Your task to perform on an android device: turn off location Image 0: 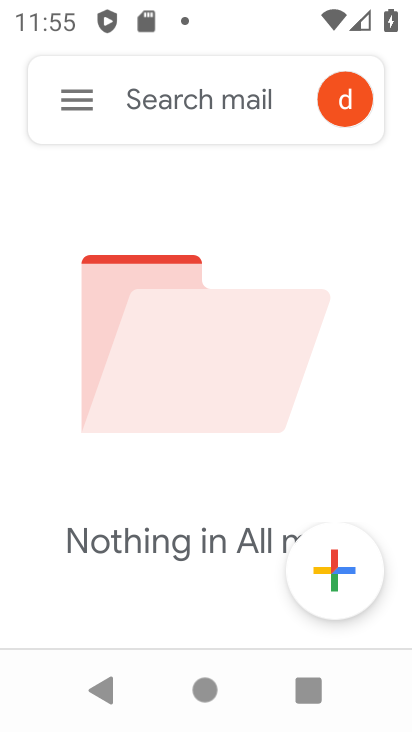
Step 0: press home button
Your task to perform on an android device: turn off location Image 1: 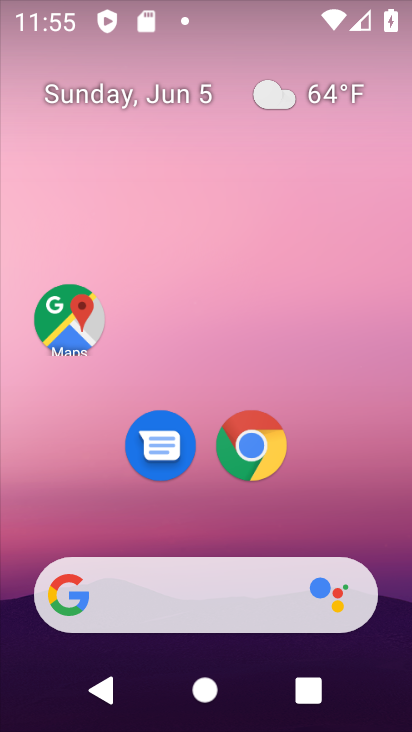
Step 1: drag from (259, 644) to (285, 34)
Your task to perform on an android device: turn off location Image 2: 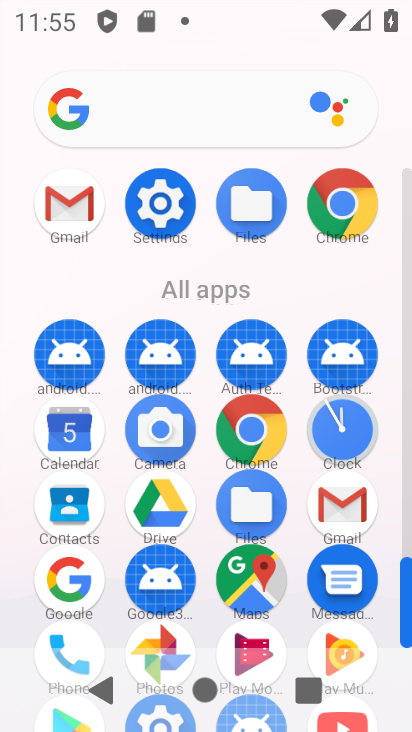
Step 2: click (176, 188)
Your task to perform on an android device: turn off location Image 3: 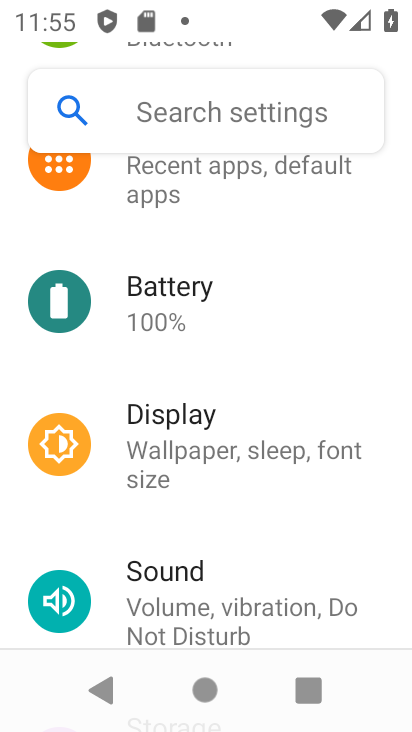
Step 3: drag from (186, 601) to (232, 104)
Your task to perform on an android device: turn off location Image 4: 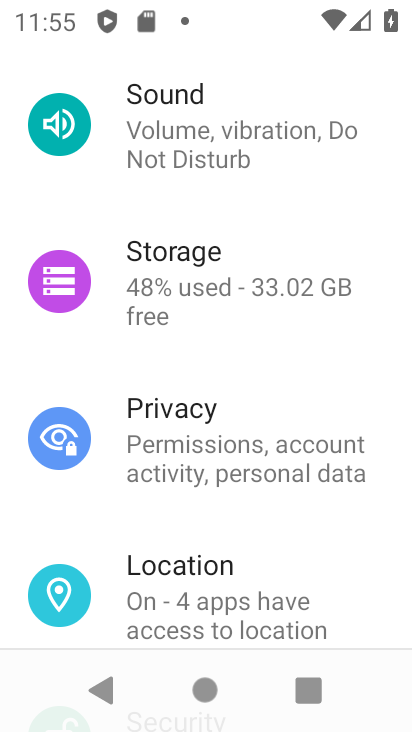
Step 4: click (198, 568)
Your task to perform on an android device: turn off location Image 5: 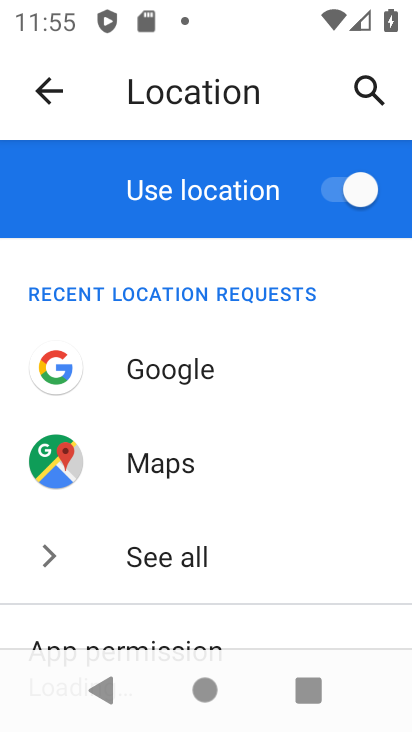
Step 5: click (335, 184)
Your task to perform on an android device: turn off location Image 6: 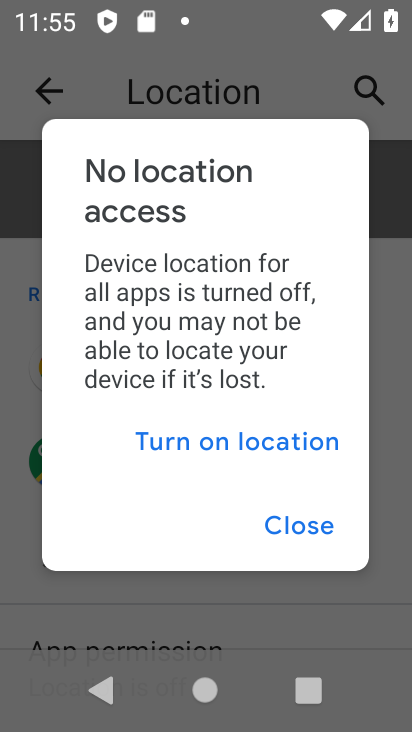
Step 6: click (300, 523)
Your task to perform on an android device: turn off location Image 7: 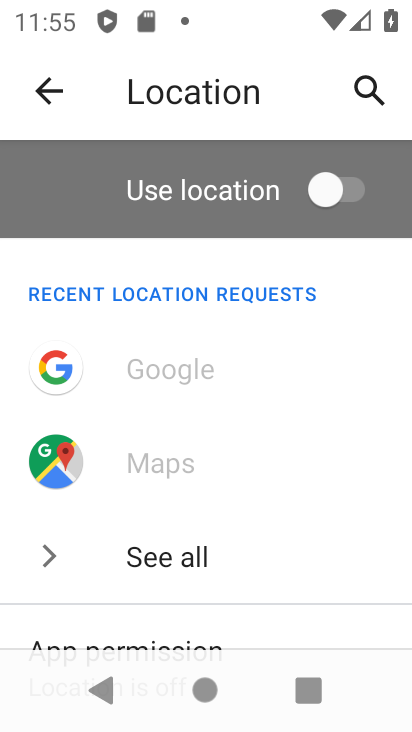
Step 7: press home button
Your task to perform on an android device: turn off location Image 8: 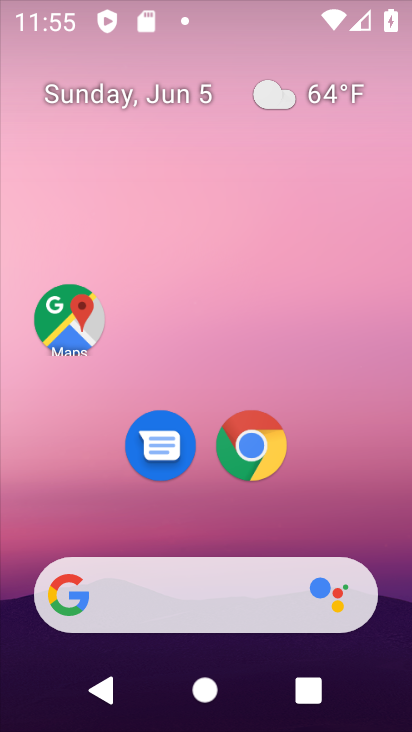
Step 8: drag from (227, 637) to (276, 105)
Your task to perform on an android device: turn off location Image 9: 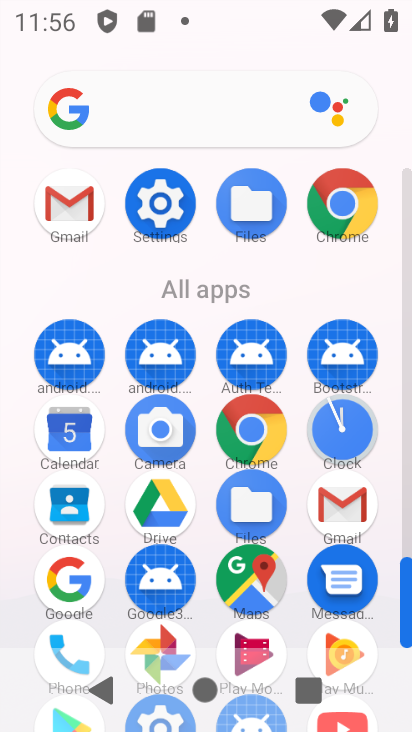
Step 9: click (187, 214)
Your task to perform on an android device: turn off location Image 10: 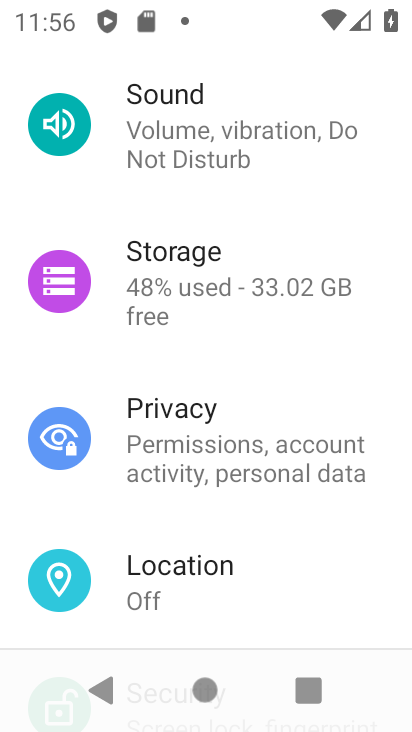
Step 10: click (191, 587)
Your task to perform on an android device: turn off location Image 11: 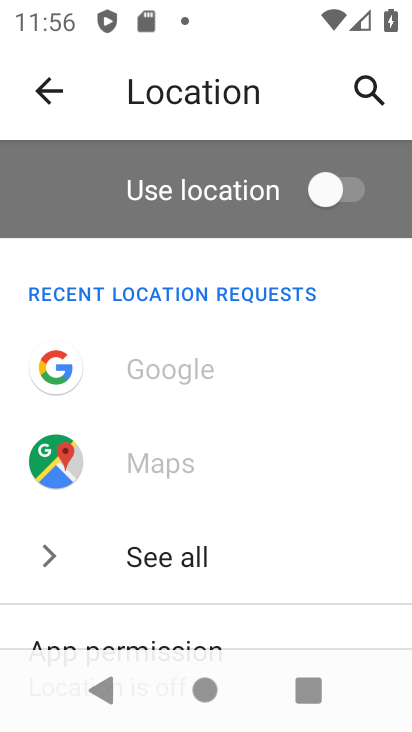
Step 11: task complete